Your task to perform on an android device: Search for "razer naga" on newegg.com, select the first entry, add it to the cart, then select checkout. Image 0: 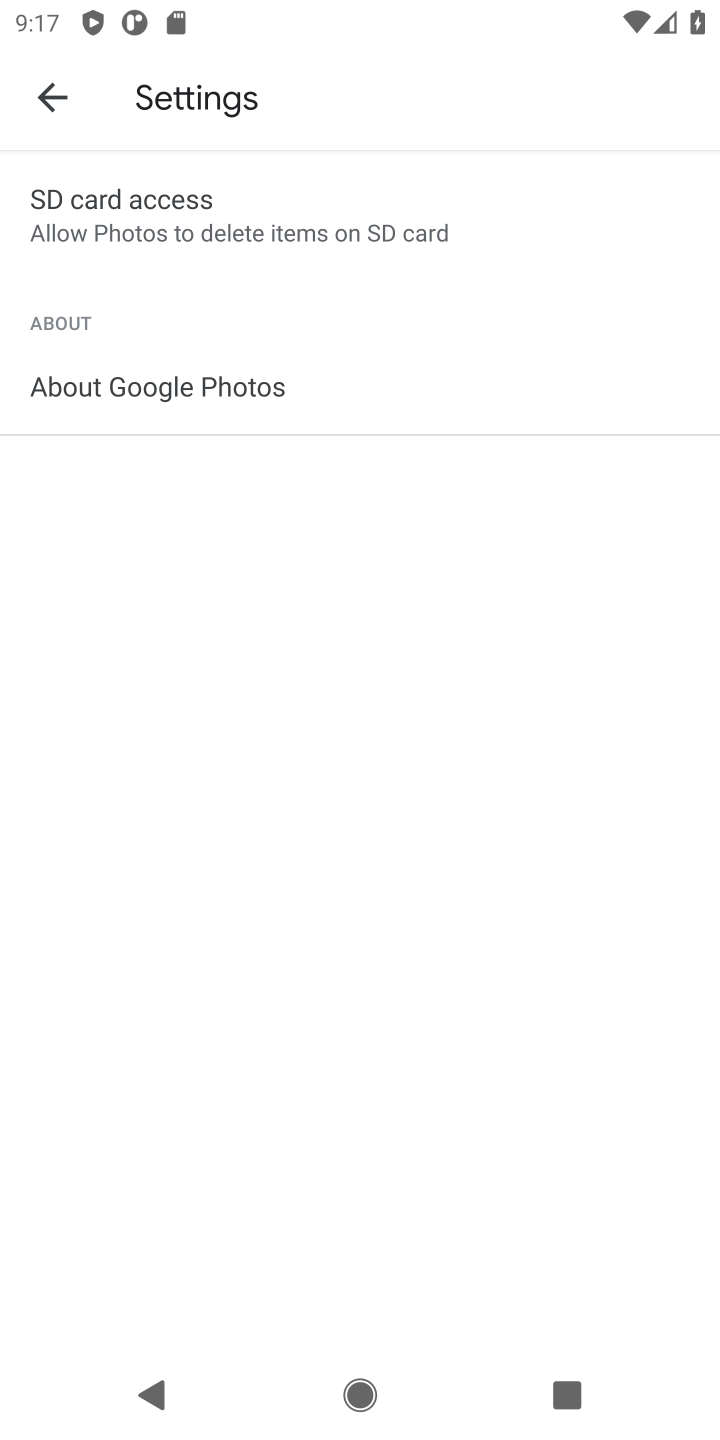
Step 0: press home button
Your task to perform on an android device: Search for "razer naga" on newegg.com, select the first entry, add it to the cart, then select checkout. Image 1: 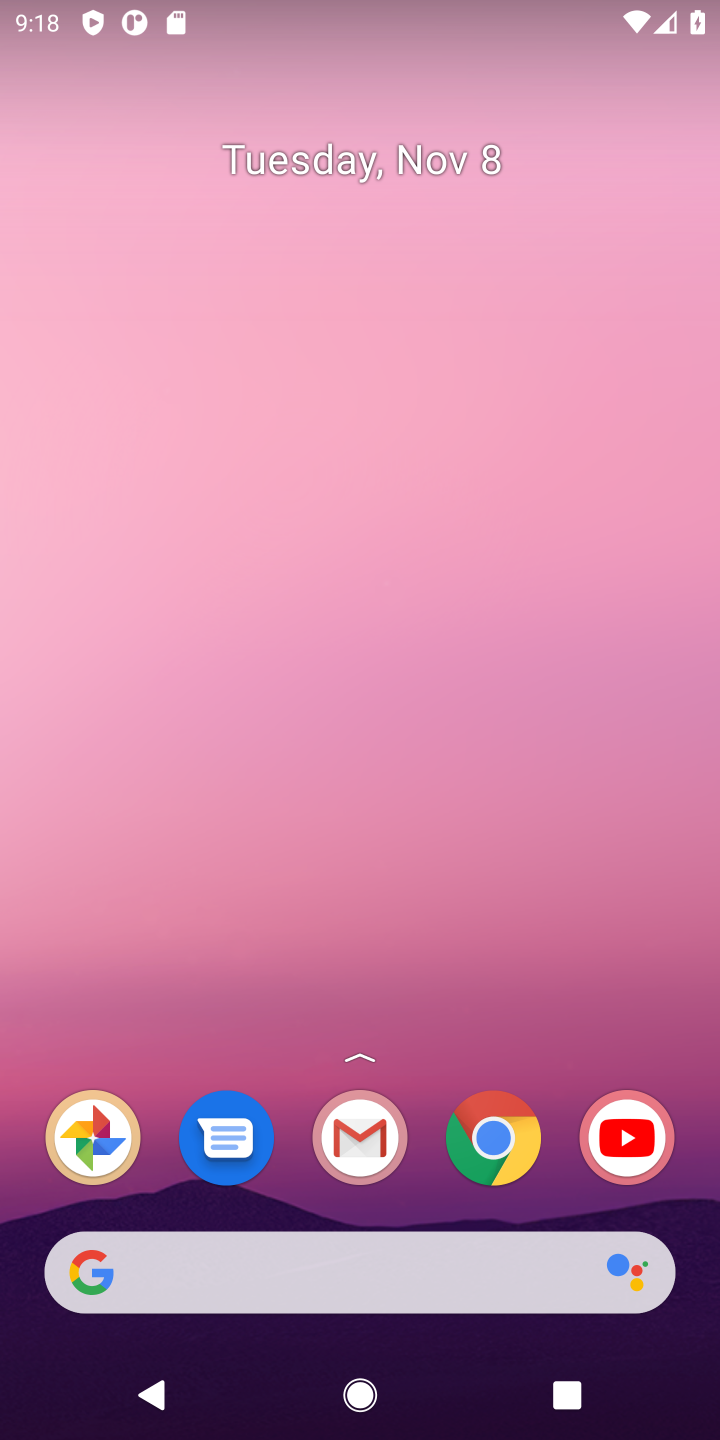
Step 1: click (502, 1140)
Your task to perform on an android device: Search for "razer naga" on newegg.com, select the first entry, add it to the cart, then select checkout. Image 2: 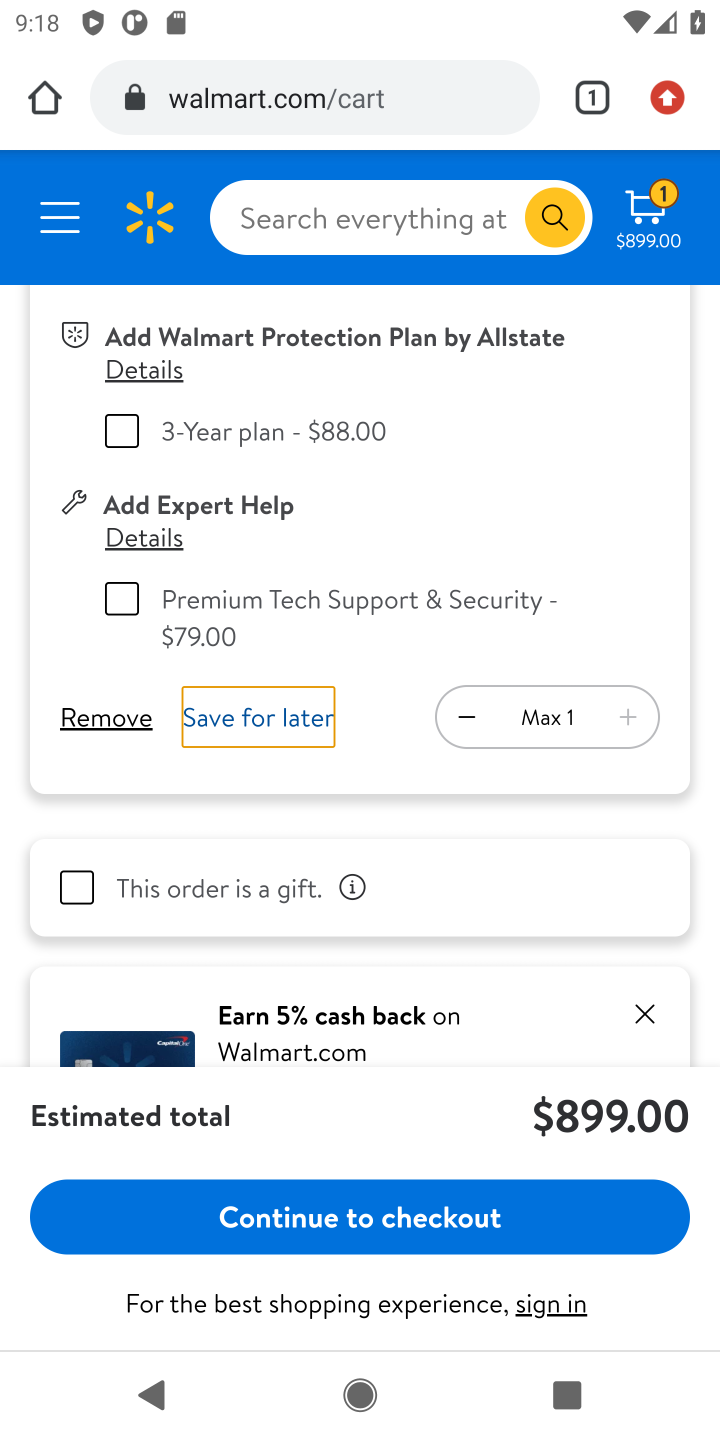
Step 2: click (444, 99)
Your task to perform on an android device: Search for "razer naga" on newegg.com, select the first entry, add it to the cart, then select checkout. Image 3: 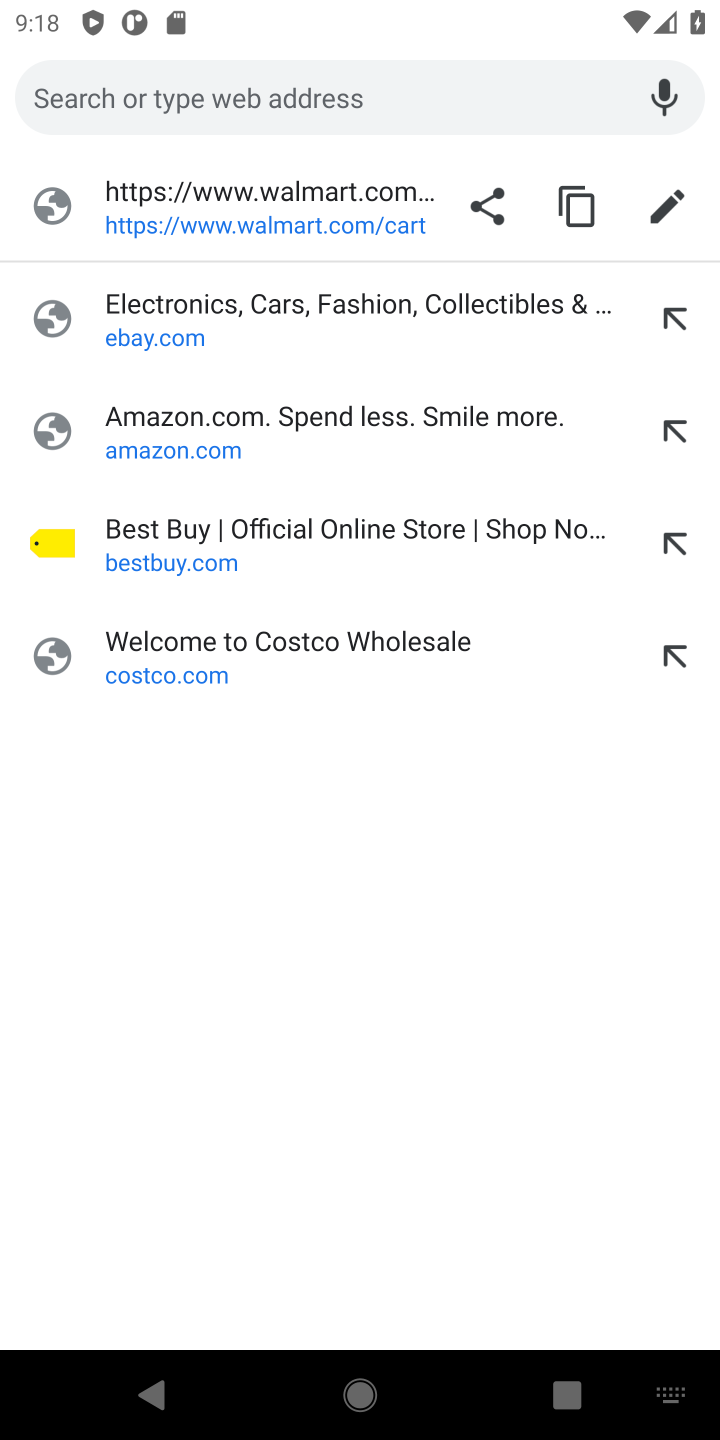
Step 3: type "newegg.com"
Your task to perform on an android device: Search for "razer naga" on newegg.com, select the first entry, add it to the cart, then select checkout. Image 4: 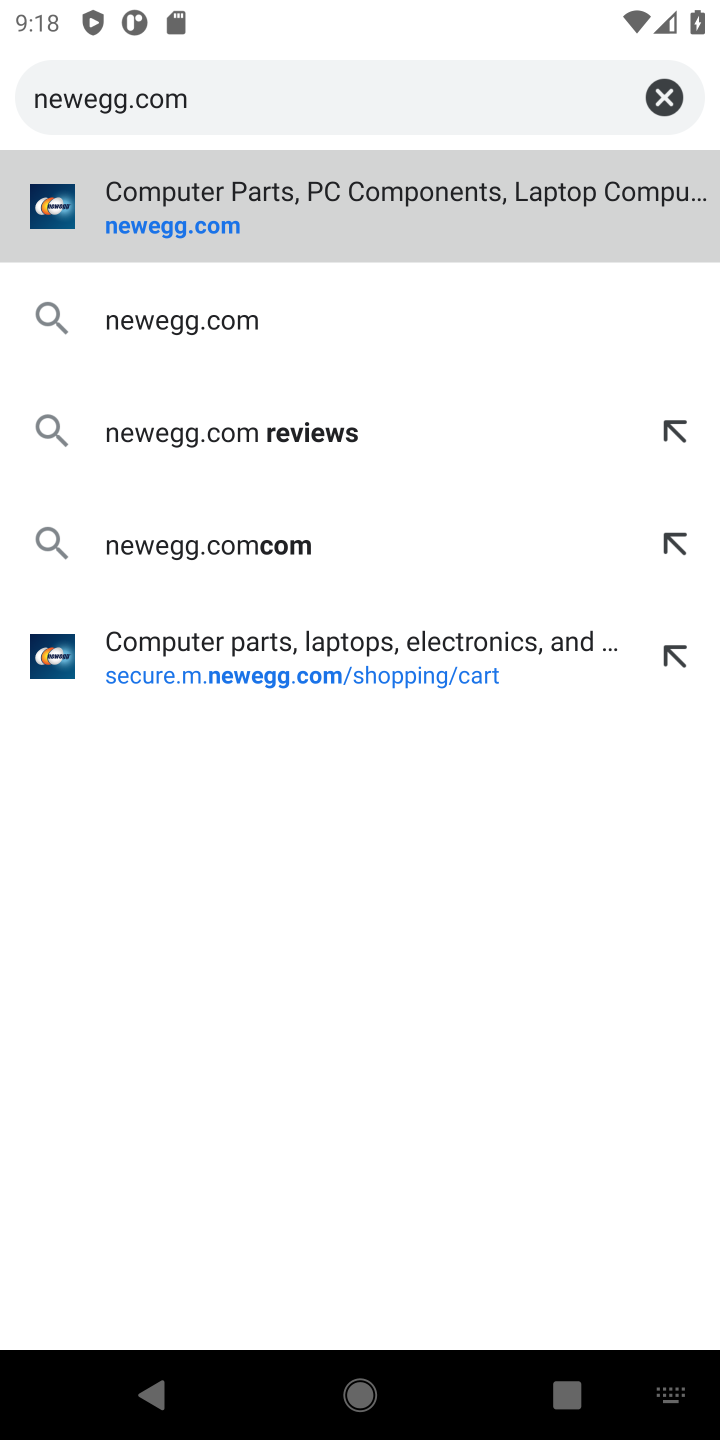
Step 4: press enter
Your task to perform on an android device: Search for "razer naga" on newegg.com, select the first entry, add it to the cart, then select checkout. Image 5: 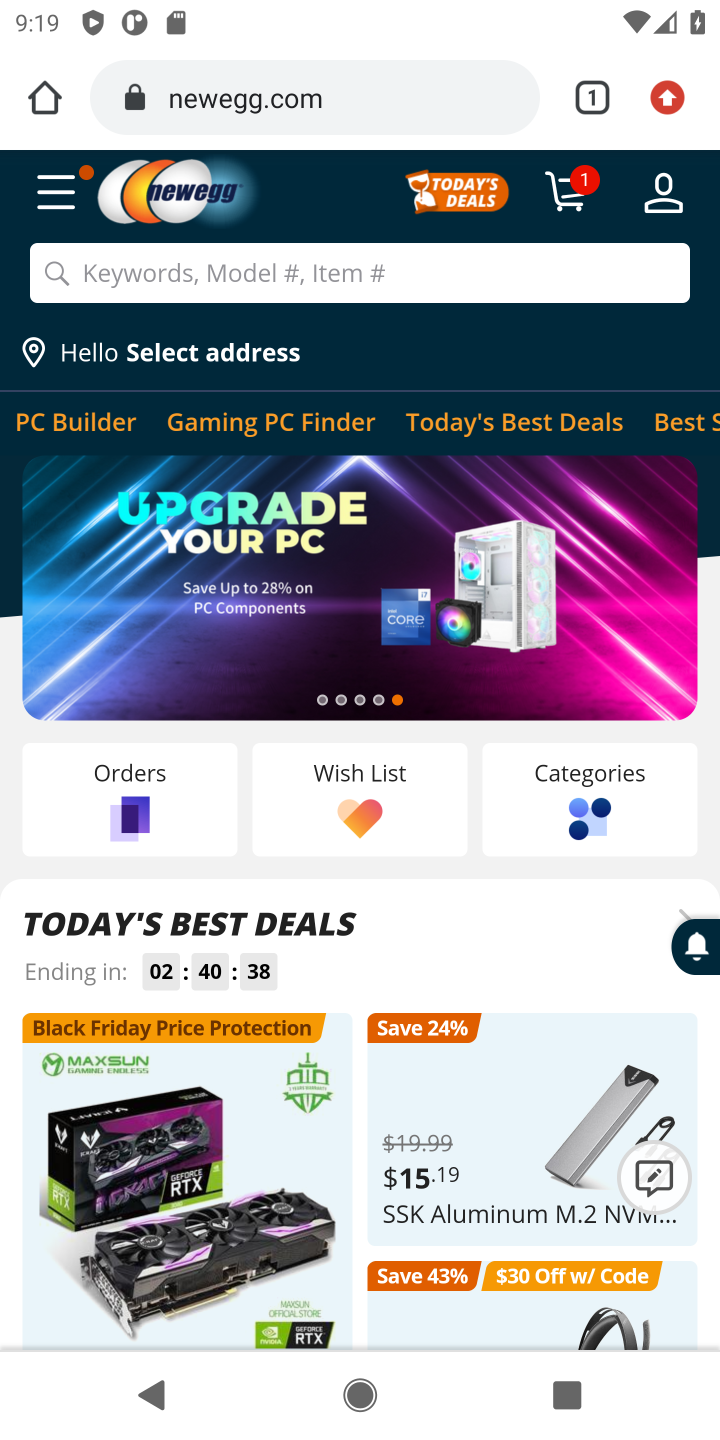
Step 5: click (232, 274)
Your task to perform on an android device: Search for "razer naga" on newegg.com, select the first entry, add it to the cart, then select checkout. Image 6: 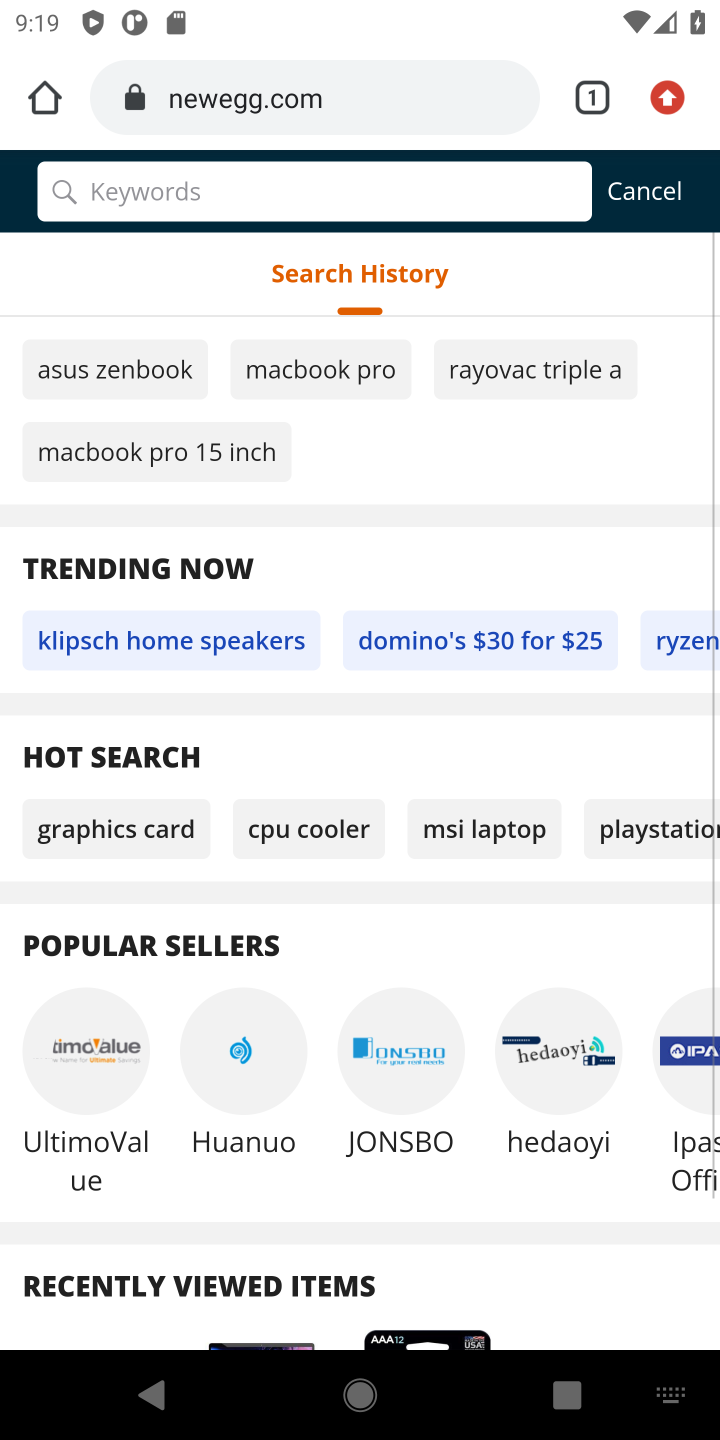
Step 6: click (147, 265)
Your task to perform on an android device: Search for "razer naga" on newegg.com, select the first entry, add it to the cart, then select checkout. Image 7: 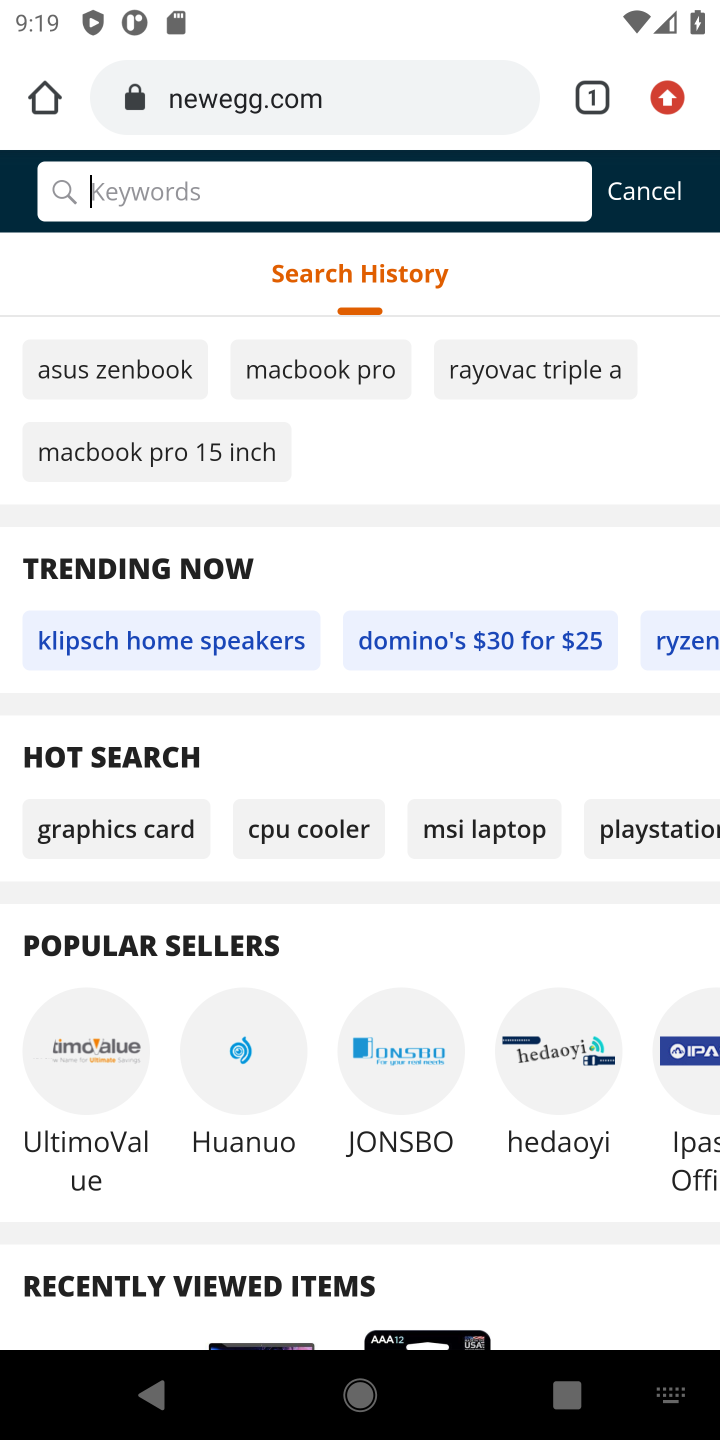
Step 7: click (111, 190)
Your task to perform on an android device: Search for "razer naga" on newegg.com, select the first entry, add it to the cart, then select checkout. Image 8: 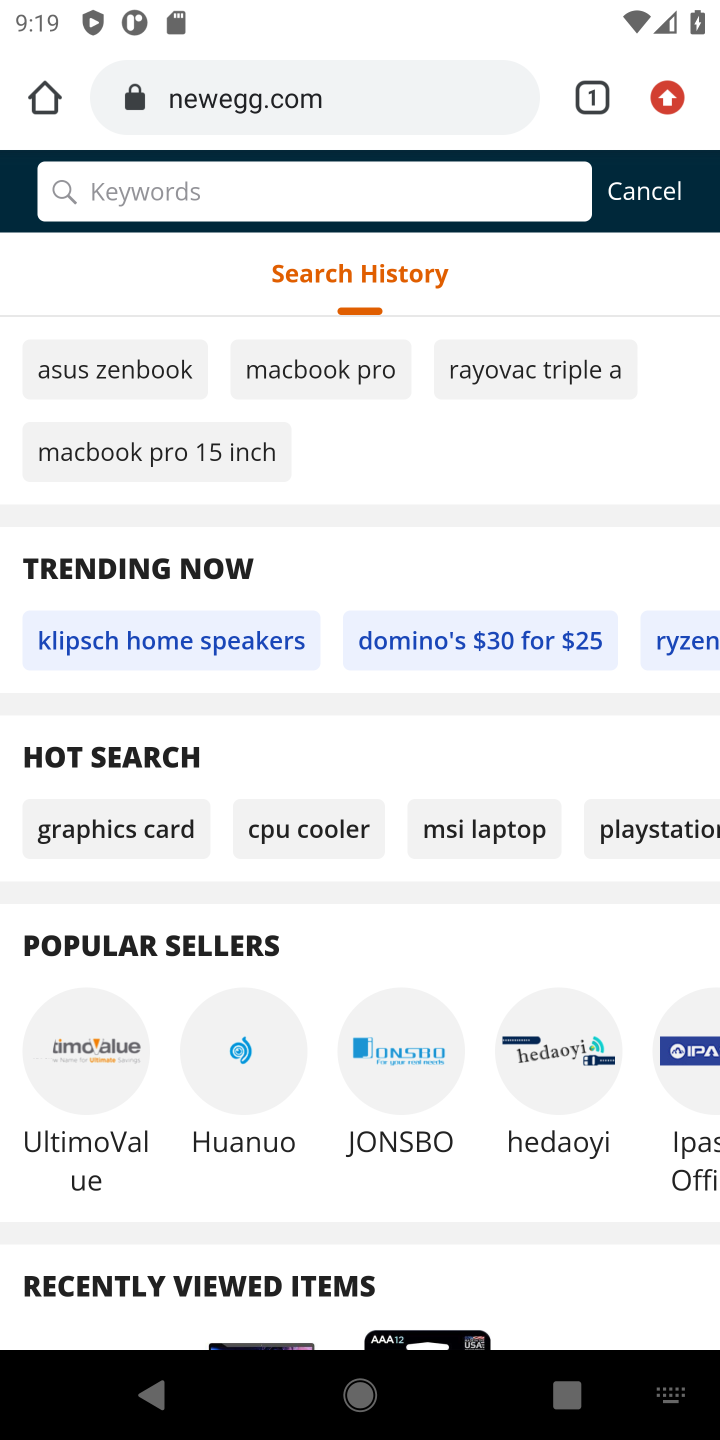
Step 8: type "razer naga"
Your task to perform on an android device: Search for "razer naga" on newegg.com, select the first entry, add it to the cart, then select checkout. Image 9: 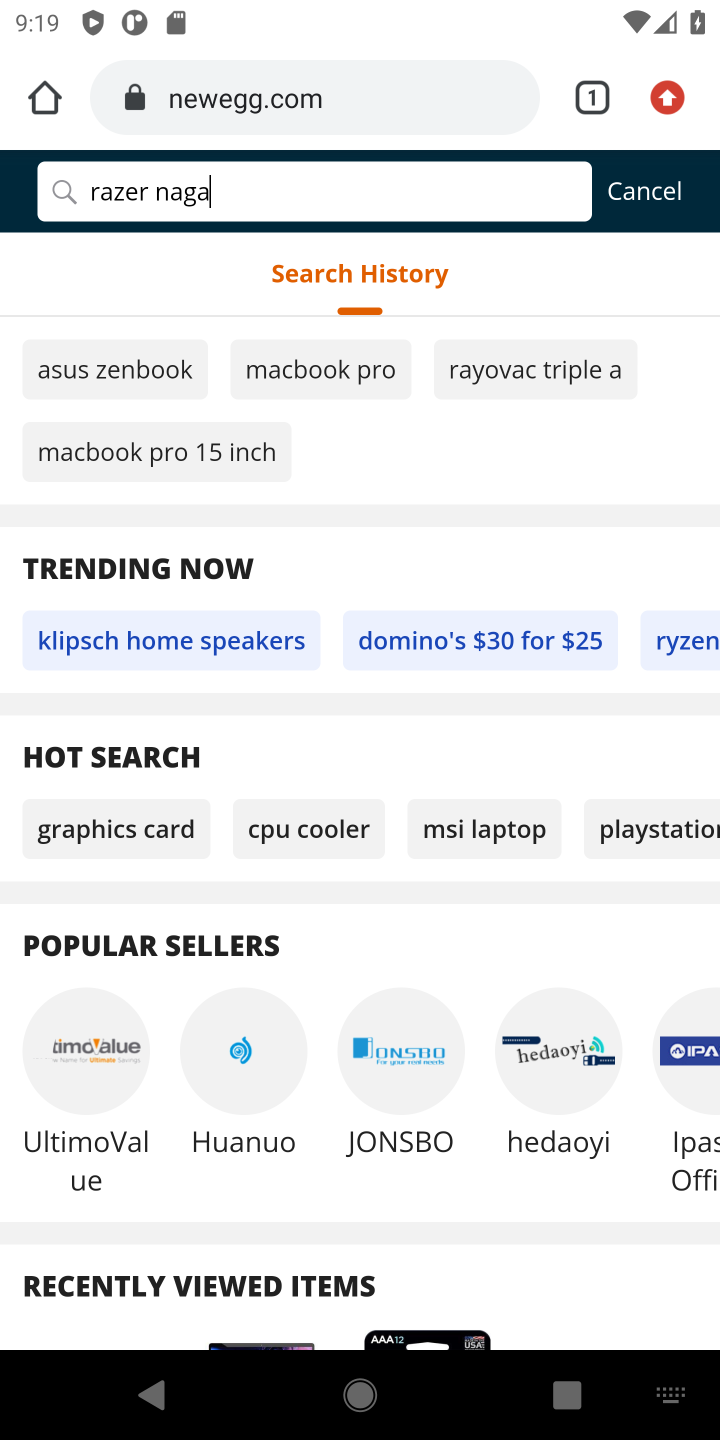
Step 9: press enter
Your task to perform on an android device: Search for "razer naga" on newegg.com, select the first entry, add it to the cart, then select checkout. Image 10: 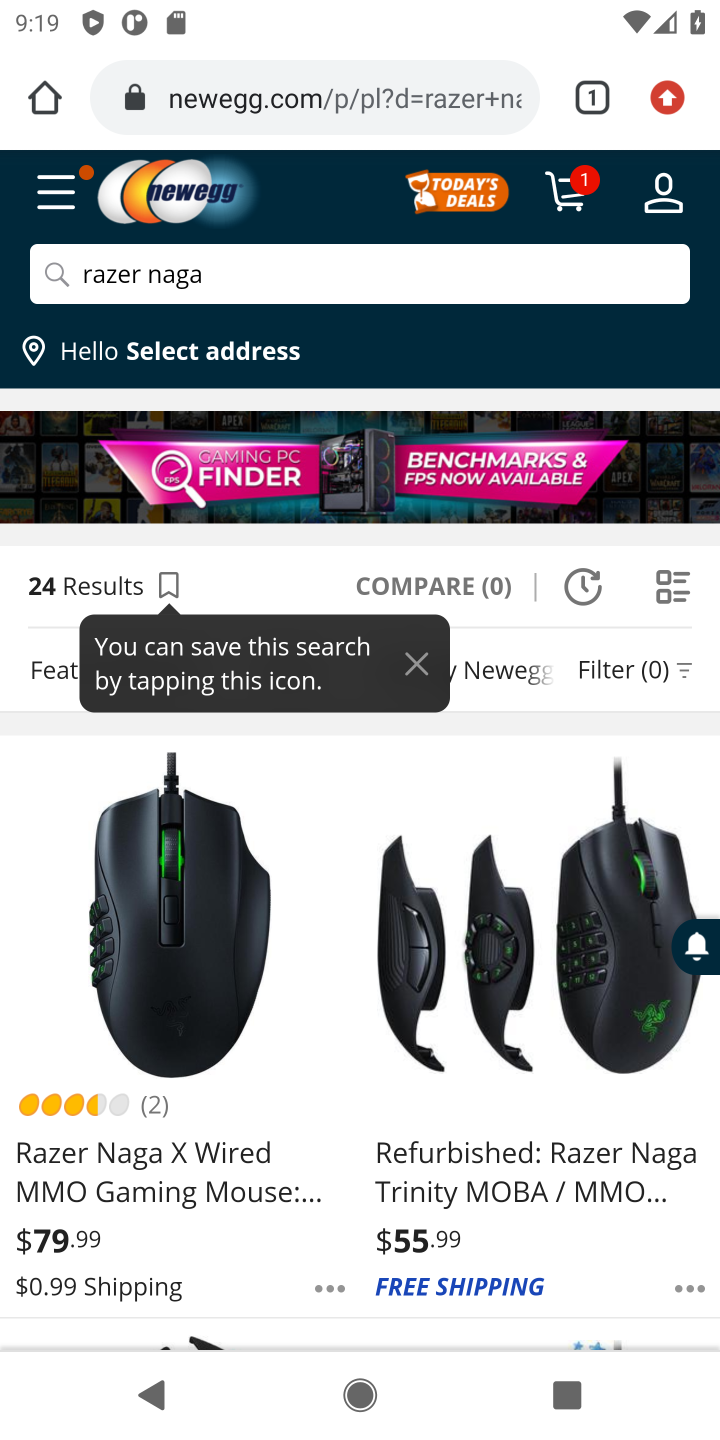
Step 10: click (199, 1129)
Your task to perform on an android device: Search for "razer naga" on newegg.com, select the first entry, add it to the cart, then select checkout. Image 11: 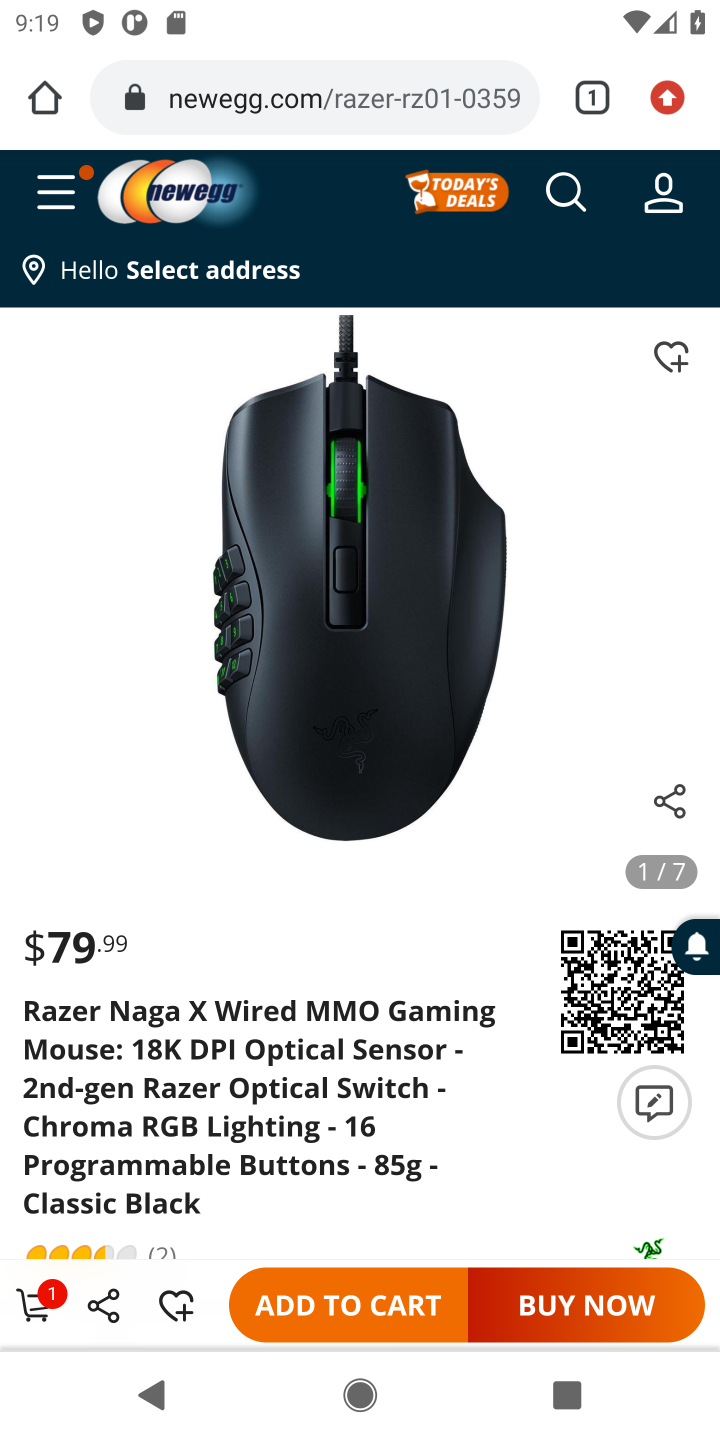
Step 11: click (377, 1302)
Your task to perform on an android device: Search for "razer naga" on newegg.com, select the first entry, add it to the cart, then select checkout. Image 12: 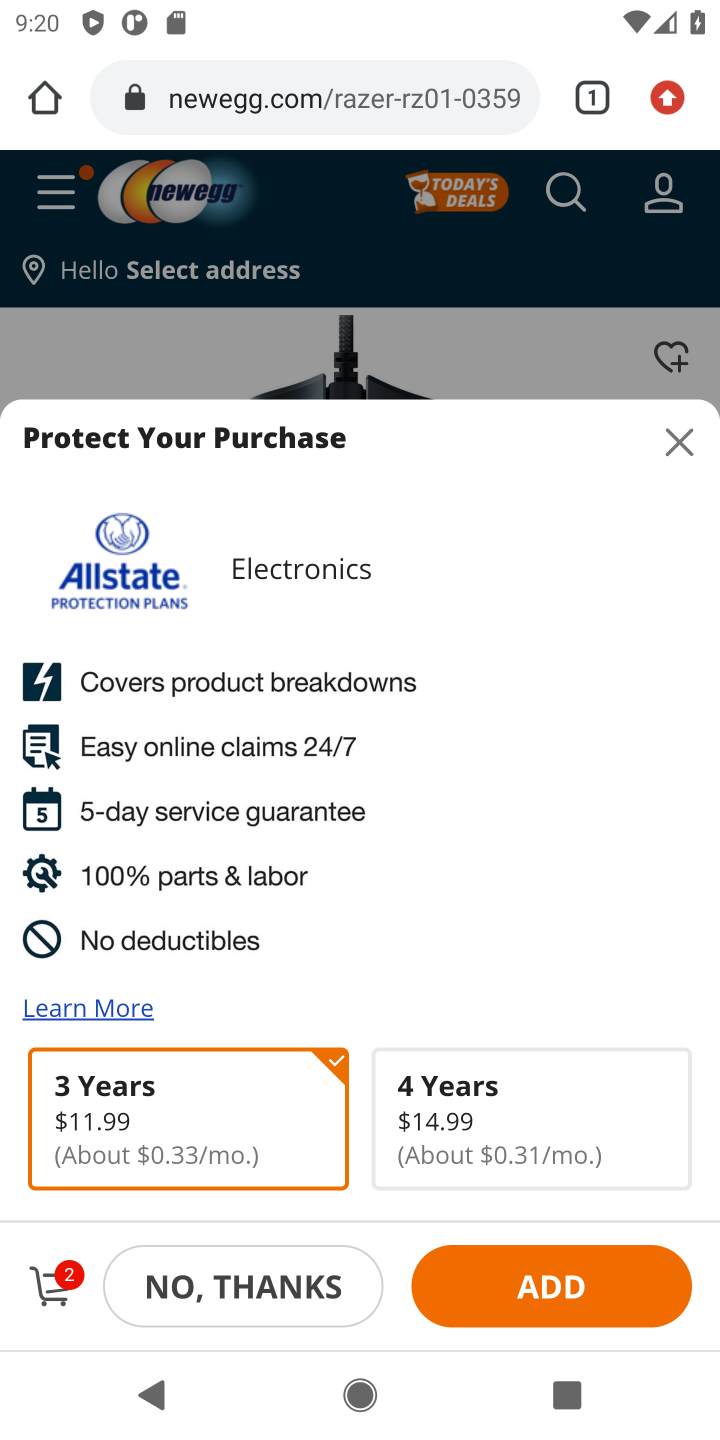
Step 12: click (46, 1290)
Your task to perform on an android device: Search for "razer naga" on newegg.com, select the first entry, add it to the cart, then select checkout. Image 13: 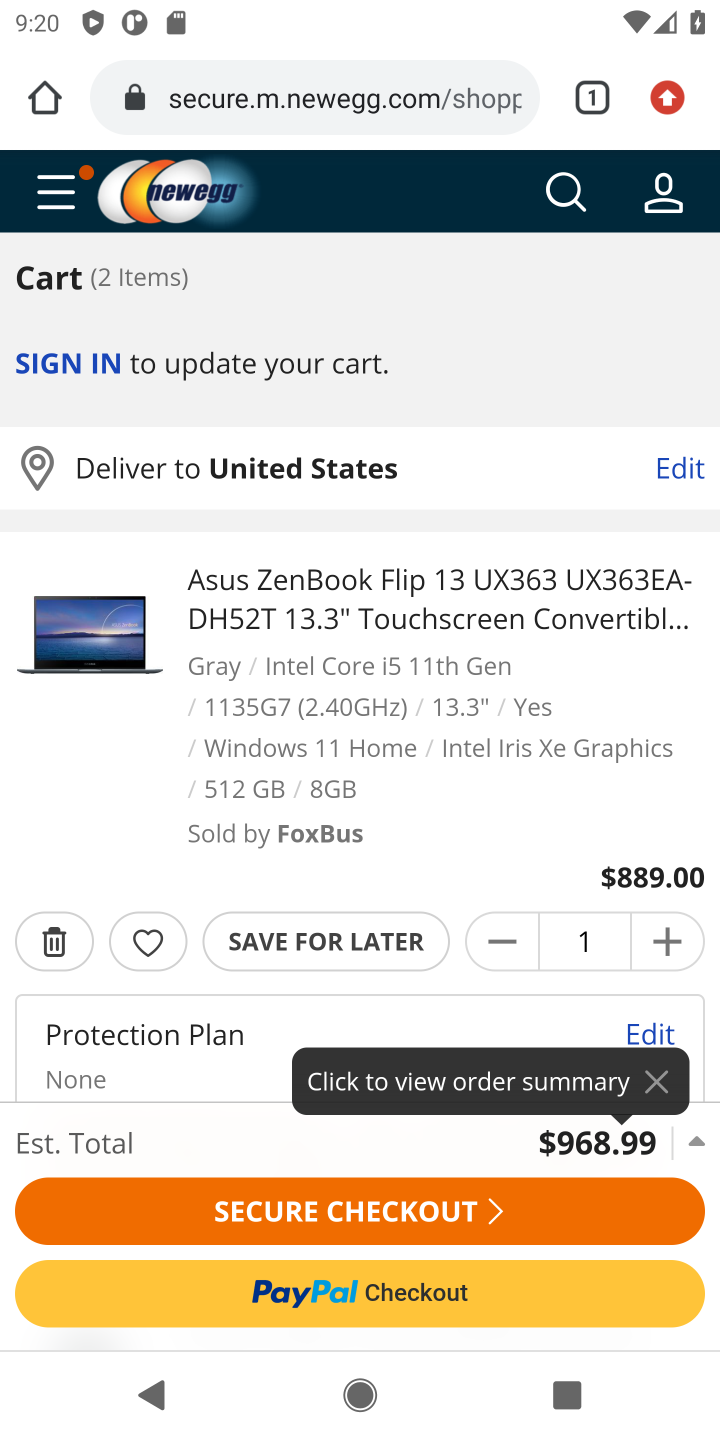
Step 13: click (52, 940)
Your task to perform on an android device: Search for "razer naga" on newegg.com, select the first entry, add it to the cart, then select checkout. Image 14: 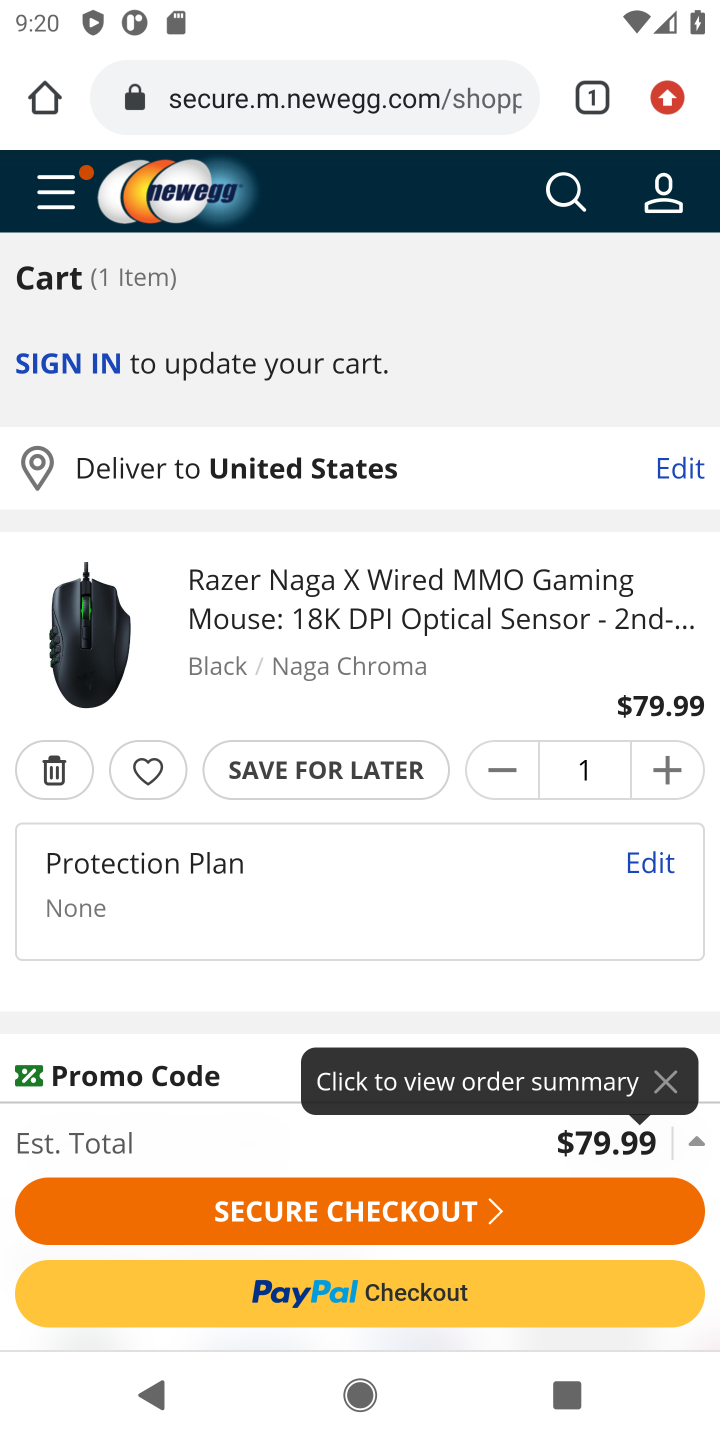
Step 14: drag from (157, 929) to (303, 1138)
Your task to perform on an android device: Search for "razer naga" on newegg.com, select the first entry, add it to the cart, then select checkout. Image 15: 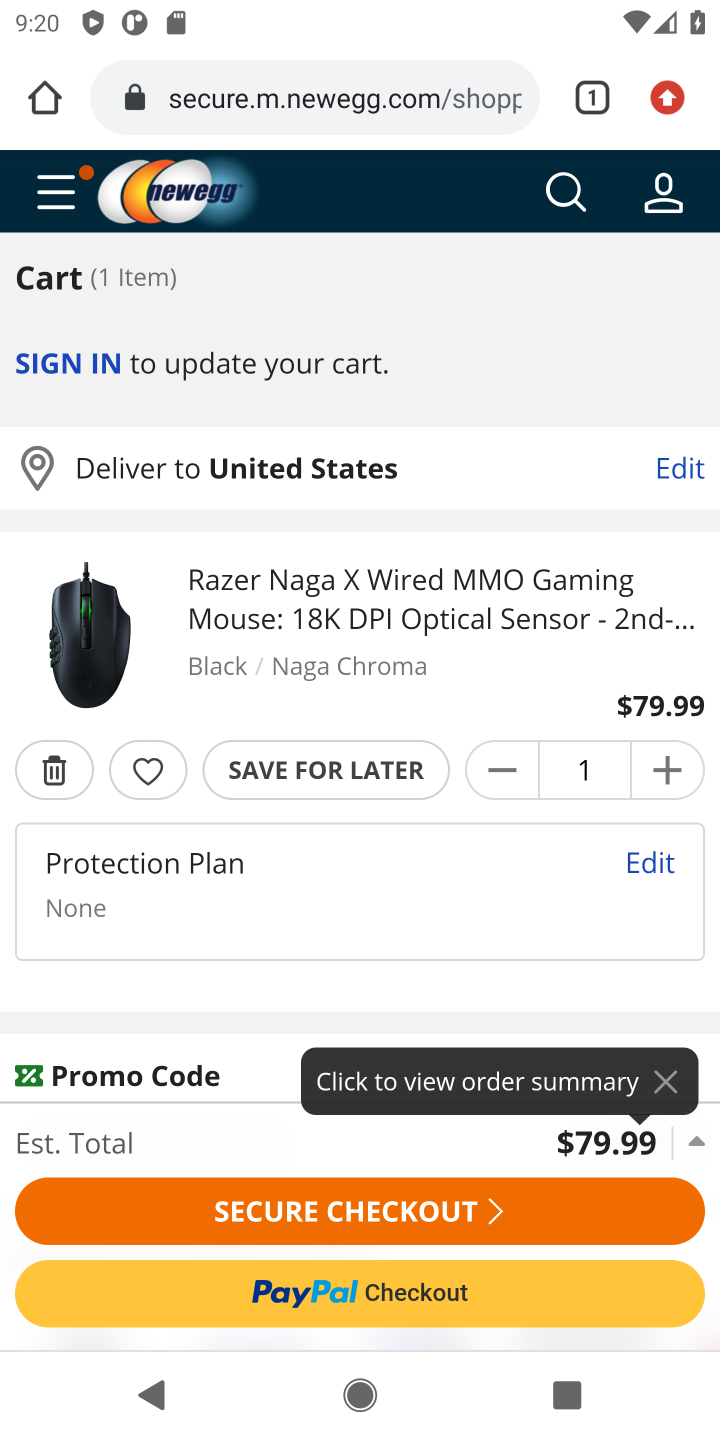
Step 15: click (363, 1214)
Your task to perform on an android device: Search for "razer naga" on newegg.com, select the first entry, add it to the cart, then select checkout. Image 16: 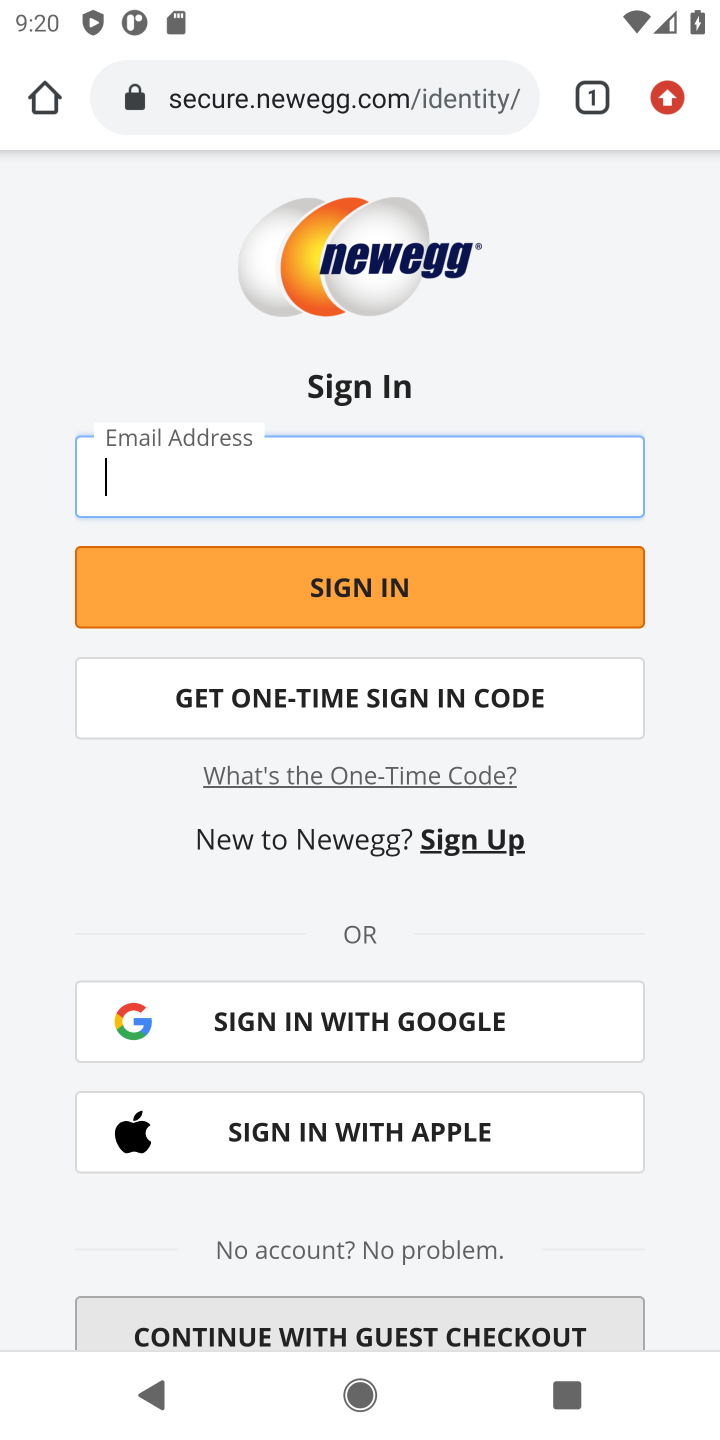
Step 16: task complete